Your task to perform on an android device: Go to ESPN.com Image 0: 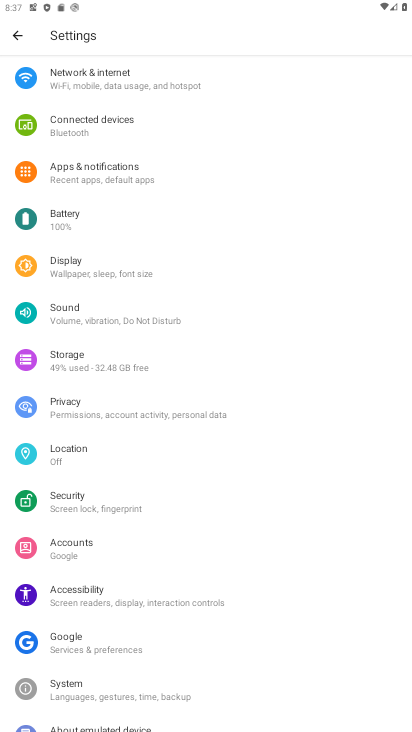
Step 0: press home button
Your task to perform on an android device: Go to ESPN.com Image 1: 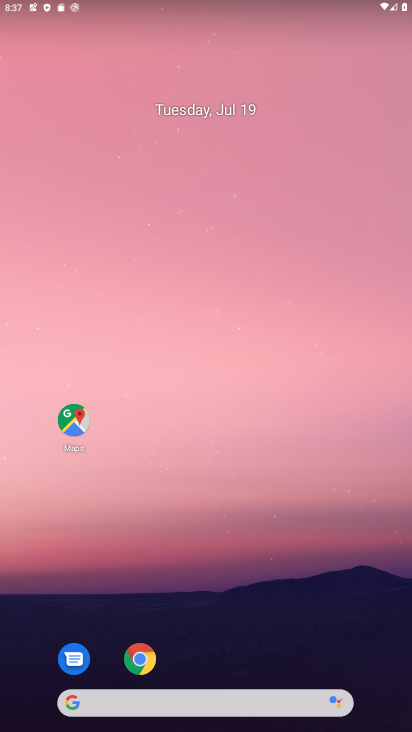
Step 1: drag from (196, 684) to (392, 211)
Your task to perform on an android device: Go to ESPN.com Image 2: 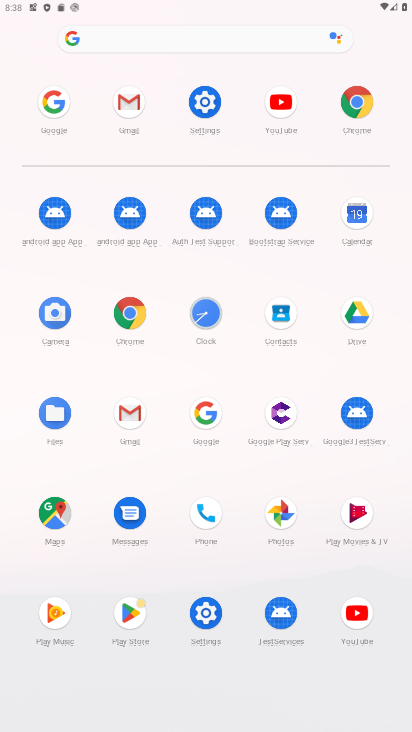
Step 2: click (364, 102)
Your task to perform on an android device: Go to ESPN.com Image 3: 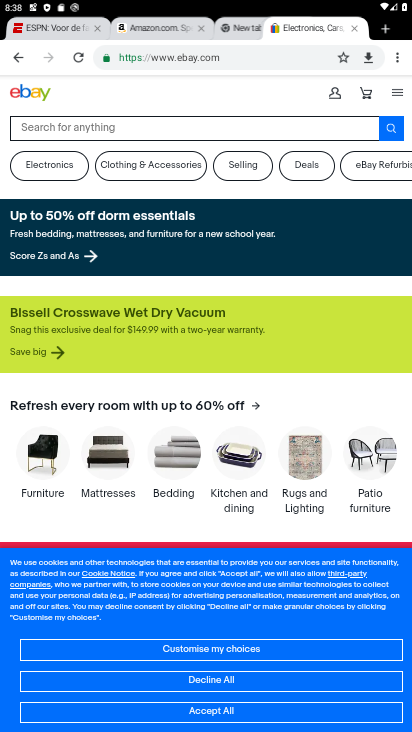
Step 3: click (64, 27)
Your task to perform on an android device: Go to ESPN.com Image 4: 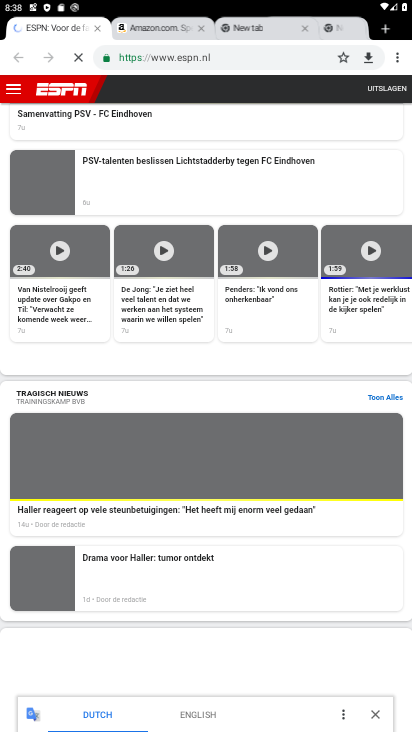
Step 4: task complete